Your task to perform on an android device: turn pop-ups on in chrome Image 0: 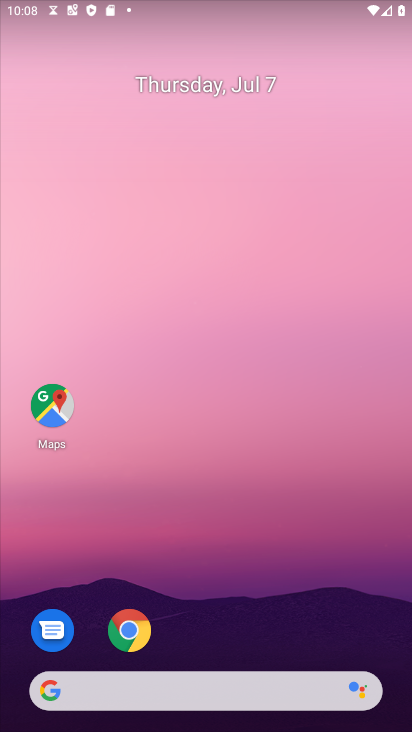
Step 0: click (119, 632)
Your task to perform on an android device: turn pop-ups on in chrome Image 1: 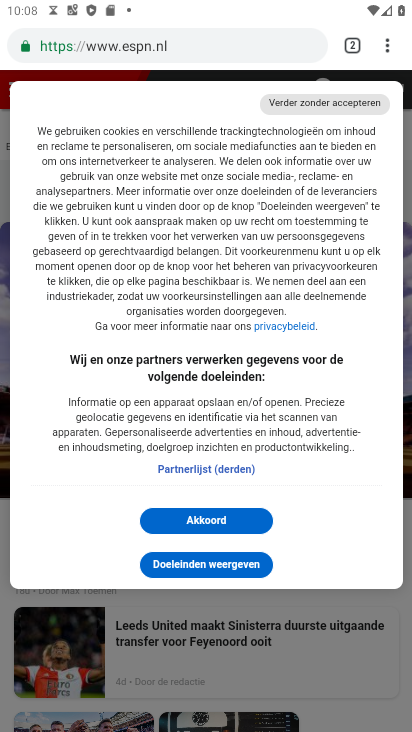
Step 1: click (386, 50)
Your task to perform on an android device: turn pop-ups on in chrome Image 2: 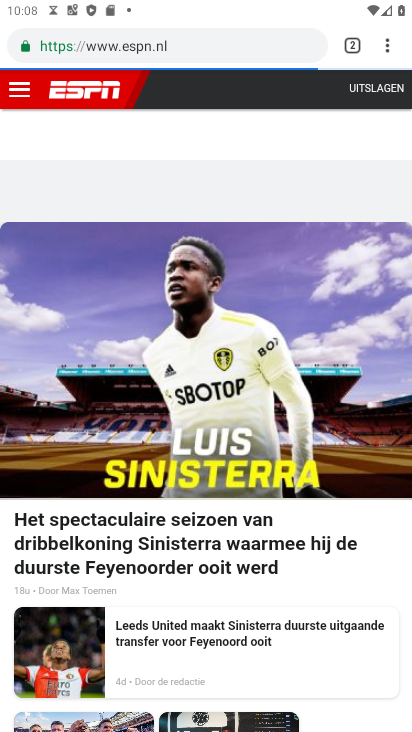
Step 2: click (387, 49)
Your task to perform on an android device: turn pop-ups on in chrome Image 3: 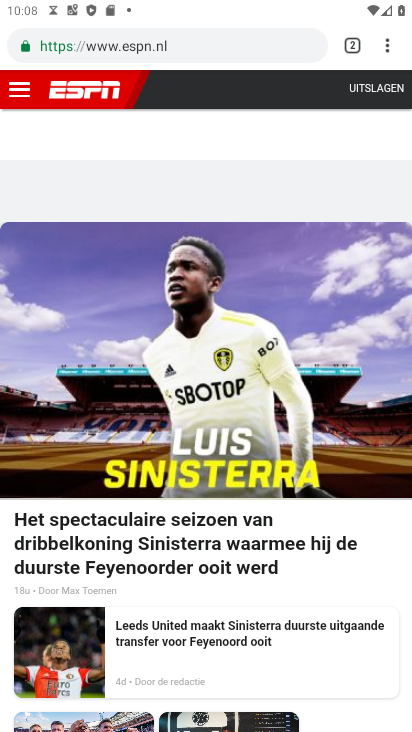
Step 3: click (389, 42)
Your task to perform on an android device: turn pop-ups on in chrome Image 4: 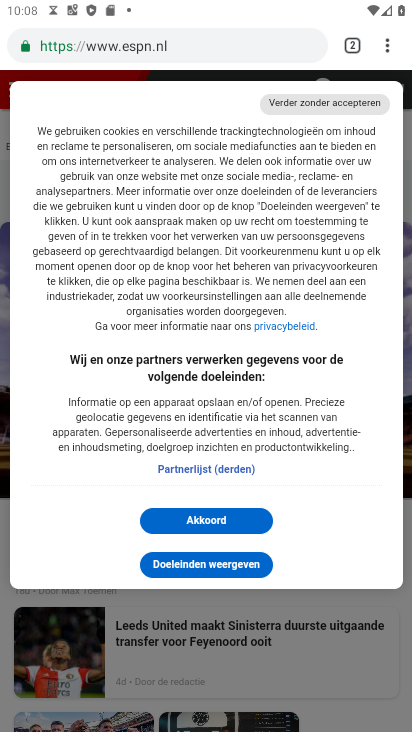
Step 4: click (391, 40)
Your task to perform on an android device: turn pop-ups on in chrome Image 5: 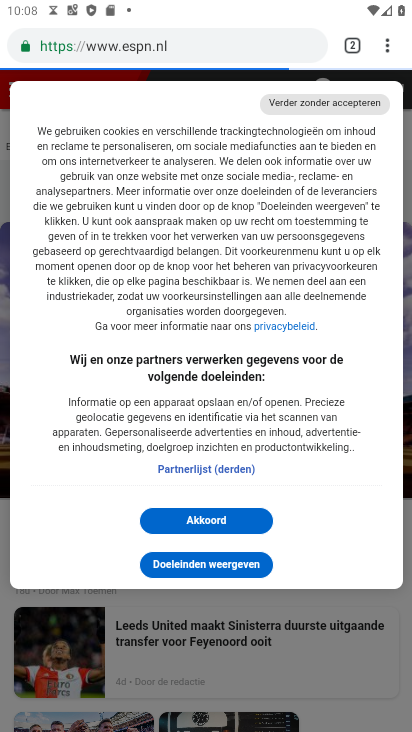
Step 5: click (391, 49)
Your task to perform on an android device: turn pop-ups on in chrome Image 6: 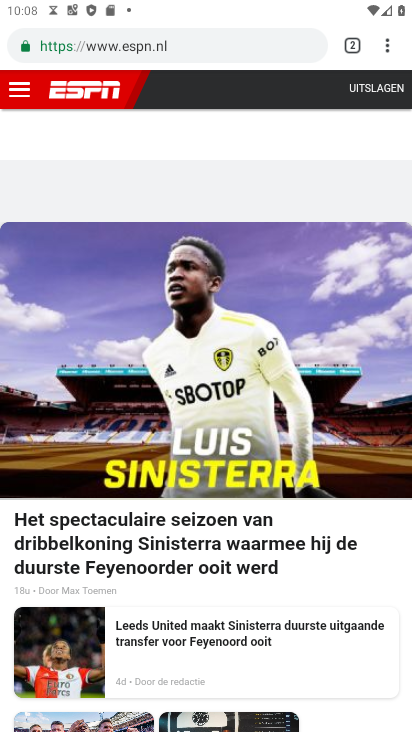
Step 6: click (386, 46)
Your task to perform on an android device: turn pop-ups on in chrome Image 7: 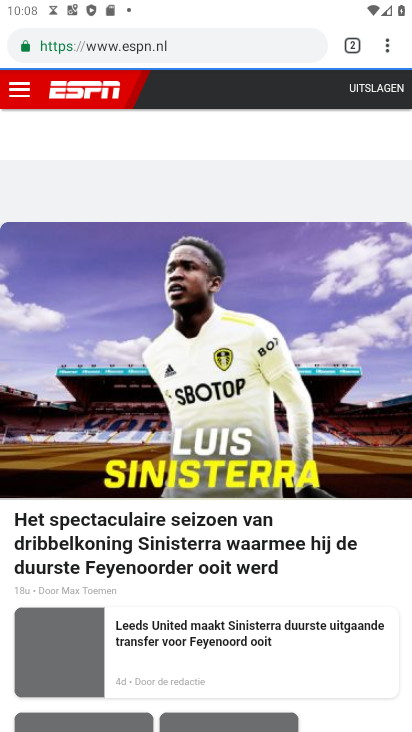
Step 7: click (386, 46)
Your task to perform on an android device: turn pop-ups on in chrome Image 8: 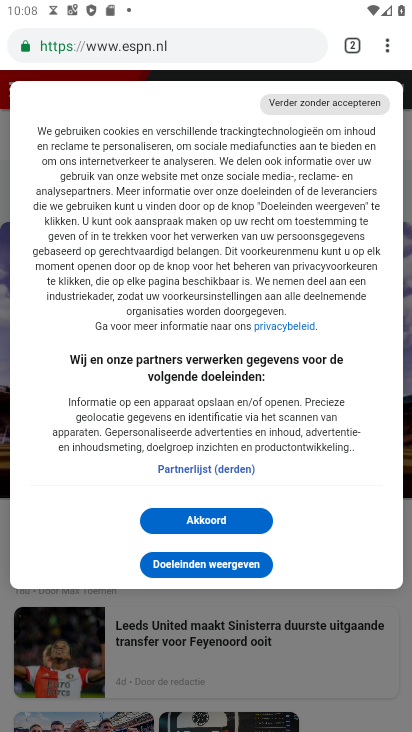
Step 8: click (386, 47)
Your task to perform on an android device: turn pop-ups on in chrome Image 9: 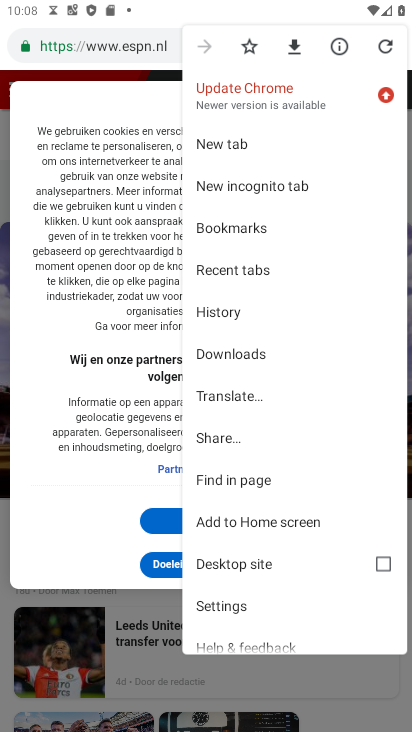
Step 9: click (232, 601)
Your task to perform on an android device: turn pop-ups on in chrome Image 10: 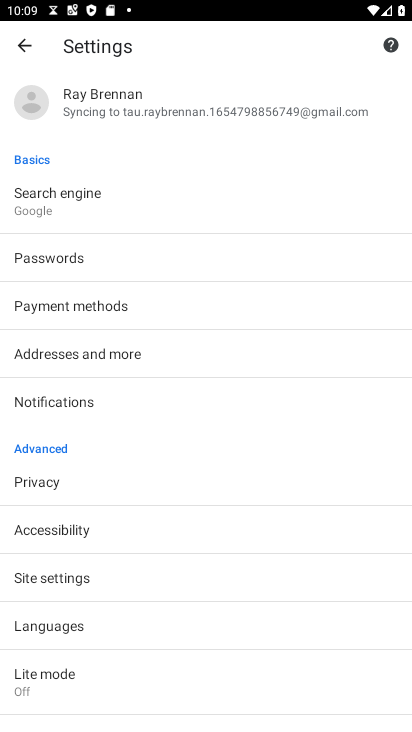
Step 10: click (46, 579)
Your task to perform on an android device: turn pop-ups on in chrome Image 11: 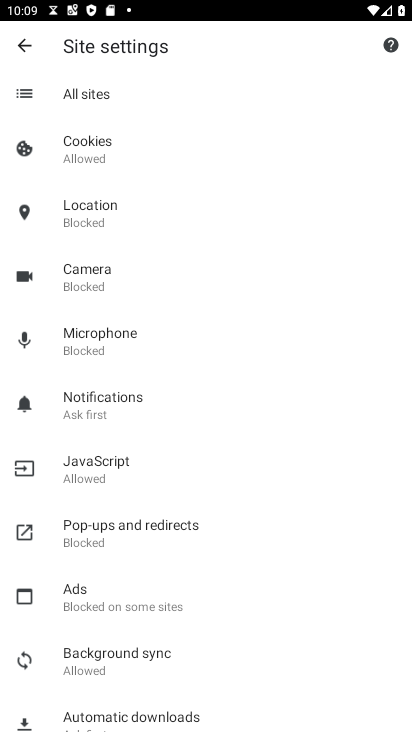
Step 11: click (86, 536)
Your task to perform on an android device: turn pop-ups on in chrome Image 12: 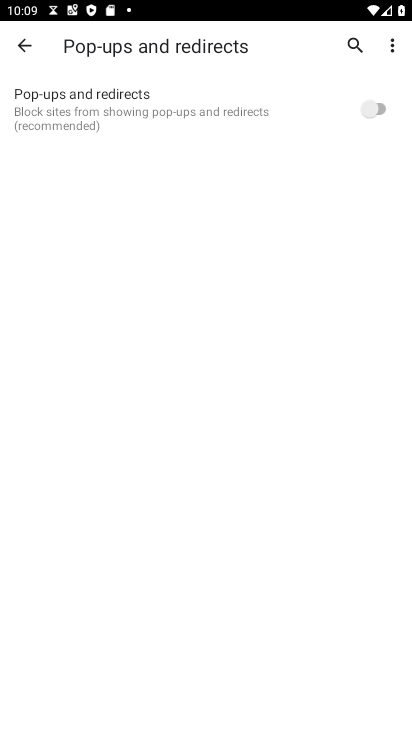
Step 12: click (382, 109)
Your task to perform on an android device: turn pop-ups on in chrome Image 13: 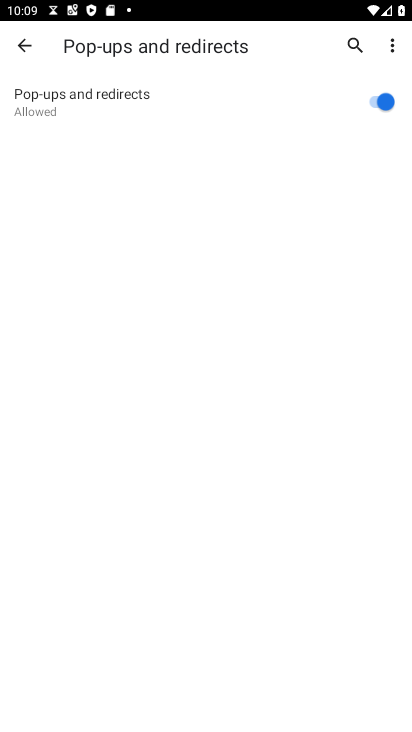
Step 13: task complete